Your task to perform on an android device: open chrome privacy settings Image 0: 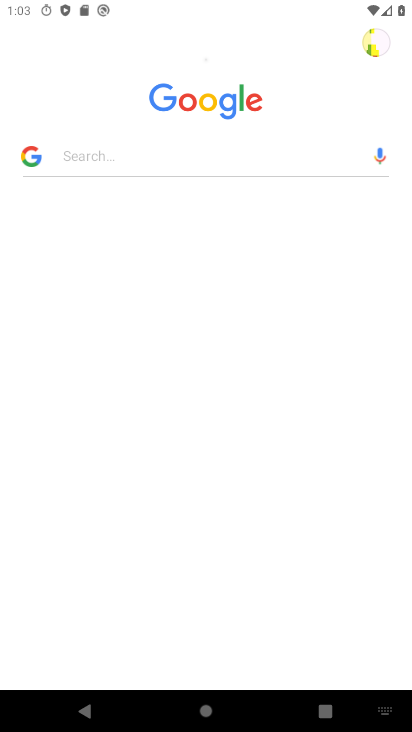
Step 0: press home button
Your task to perform on an android device: open chrome privacy settings Image 1: 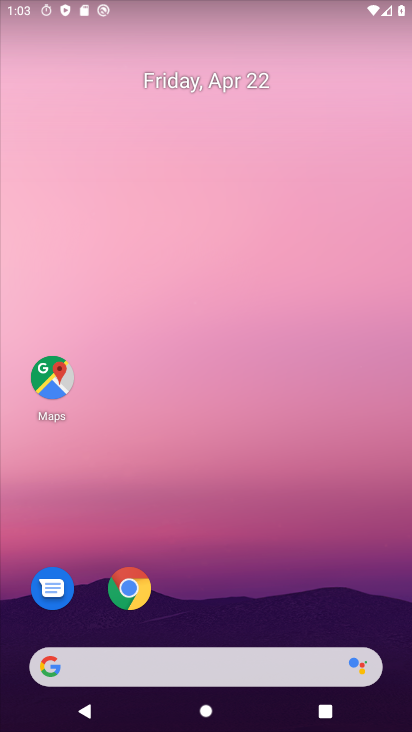
Step 1: drag from (316, 561) to (301, 107)
Your task to perform on an android device: open chrome privacy settings Image 2: 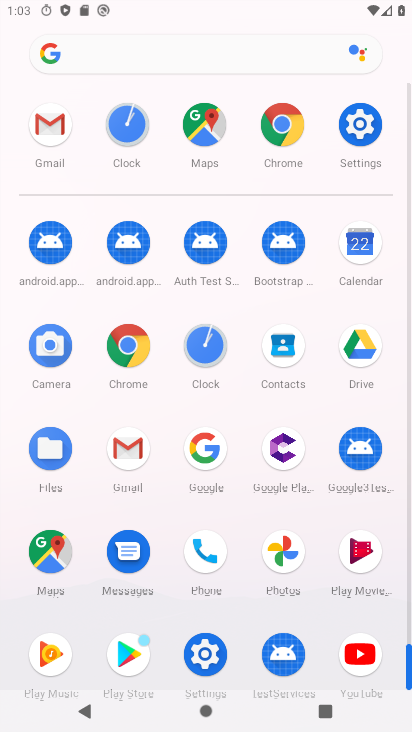
Step 2: click (129, 349)
Your task to perform on an android device: open chrome privacy settings Image 3: 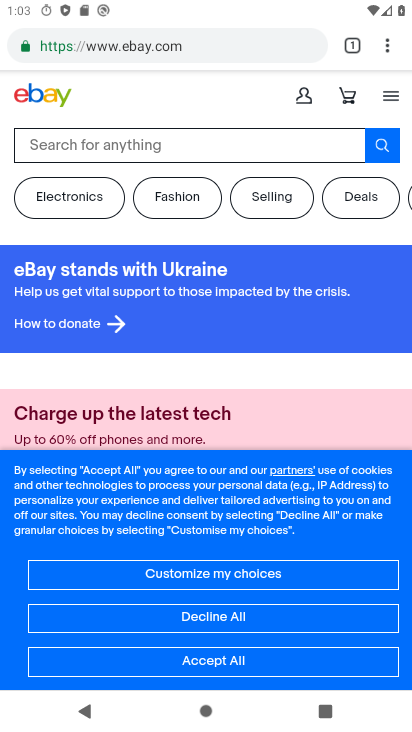
Step 3: drag from (390, 55) to (245, 601)
Your task to perform on an android device: open chrome privacy settings Image 4: 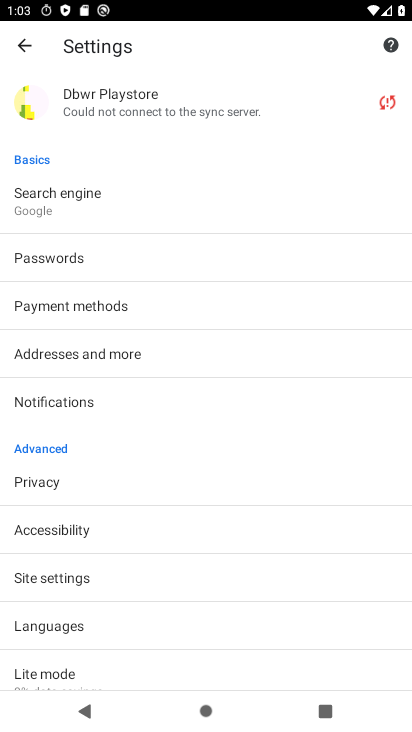
Step 4: click (85, 484)
Your task to perform on an android device: open chrome privacy settings Image 5: 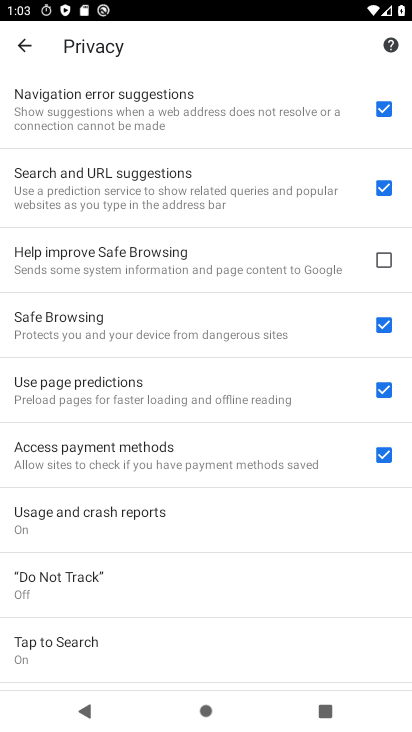
Step 5: task complete